Your task to perform on an android device: turn on data saver in the chrome app Image 0: 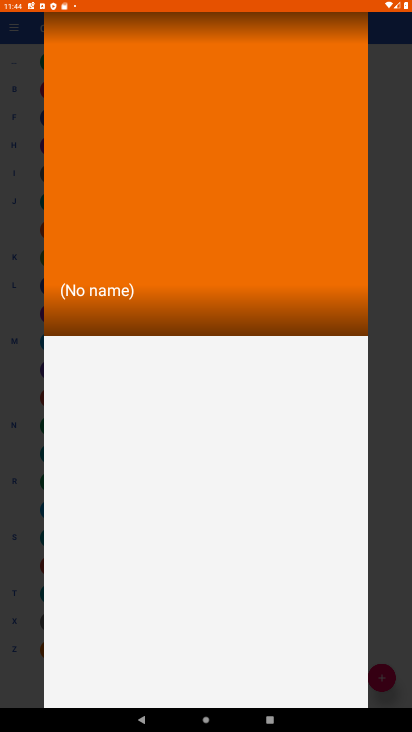
Step 0: click (169, 677)
Your task to perform on an android device: turn on data saver in the chrome app Image 1: 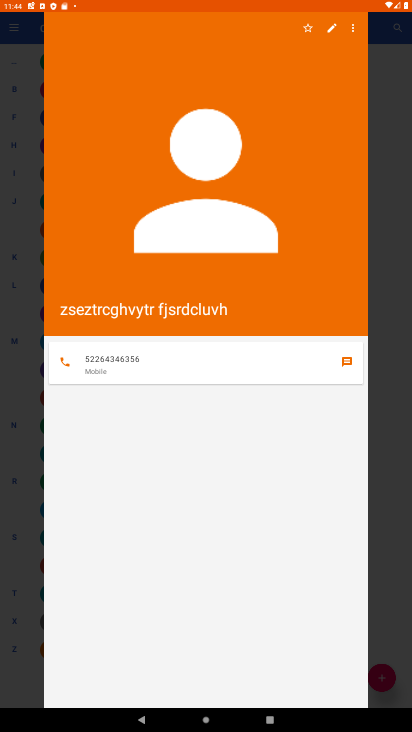
Step 1: press home button
Your task to perform on an android device: turn on data saver in the chrome app Image 2: 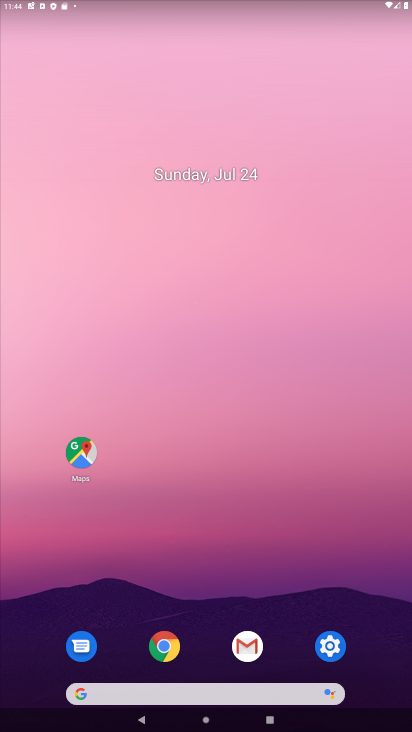
Step 2: click (162, 645)
Your task to perform on an android device: turn on data saver in the chrome app Image 3: 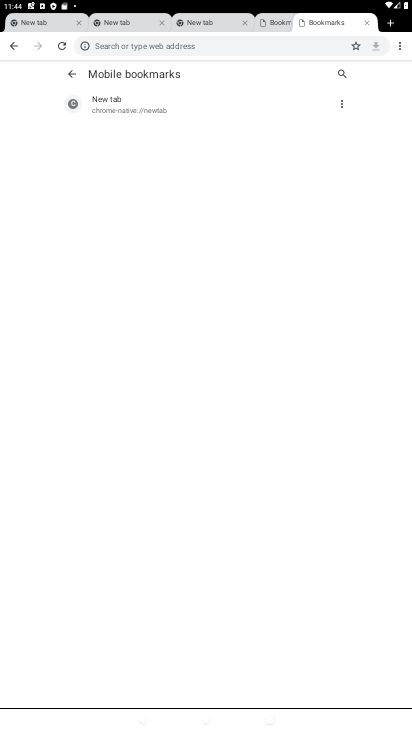
Step 3: click (396, 53)
Your task to perform on an android device: turn on data saver in the chrome app Image 4: 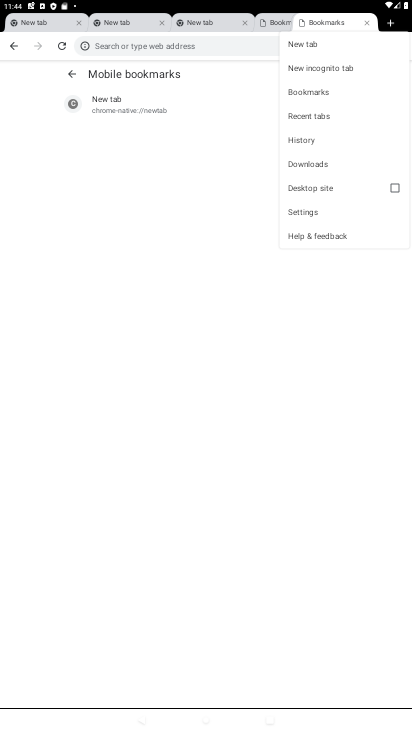
Step 4: click (318, 212)
Your task to perform on an android device: turn on data saver in the chrome app Image 5: 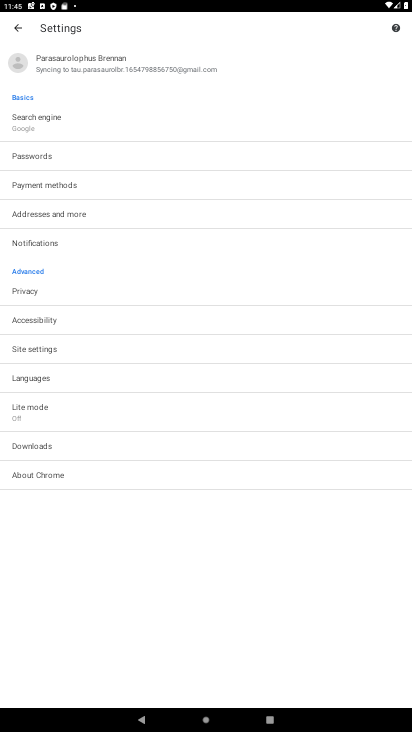
Step 5: click (70, 409)
Your task to perform on an android device: turn on data saver in the chrome app Image 6: 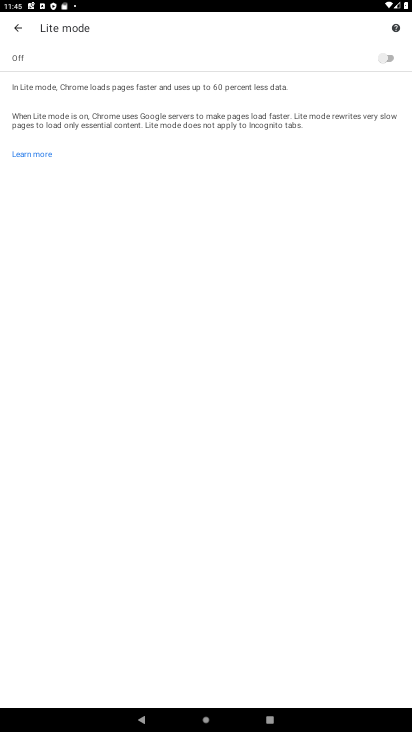
Step 6: click (383, 53)
Your task to perform on an android device: turn on data saver in the chrome app Image 7: 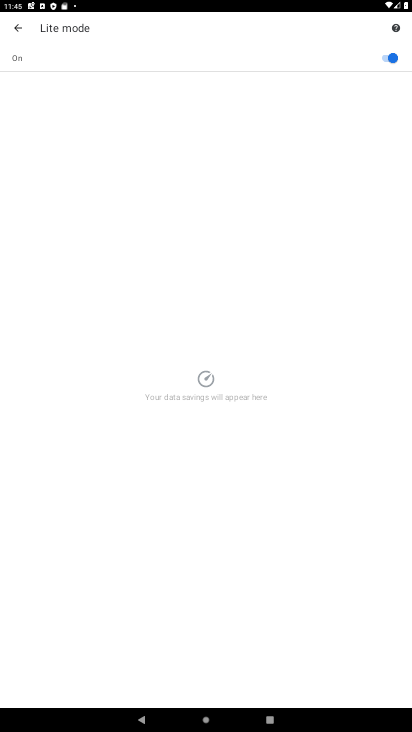
Step 7: task complete